Your task to perform on an android device: Toggle the flashlight Image 0: 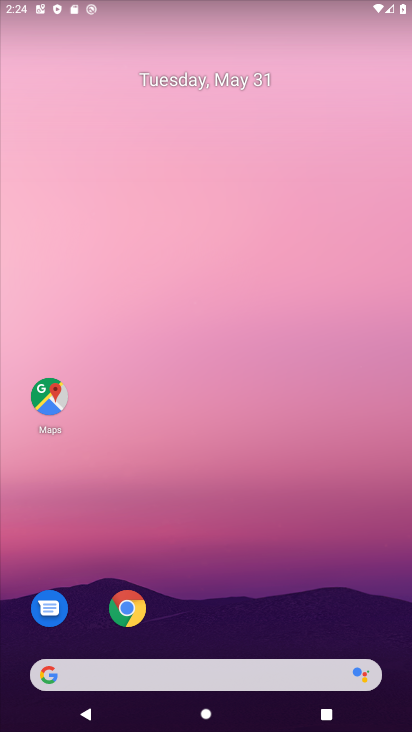
Step 0: drag from (178, 630) to (176, 10)
Your task to perform on an android device: Toggle the flashlight Image 1: 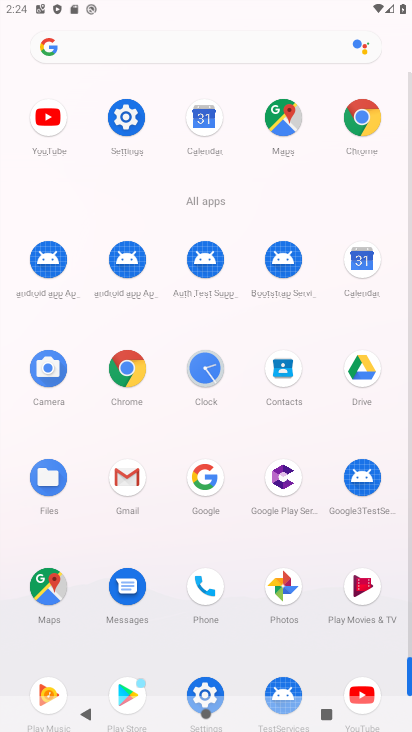
Step 1: click (130, 132)
Your task to perform on an android device: Toggle the flashlight Image 2: 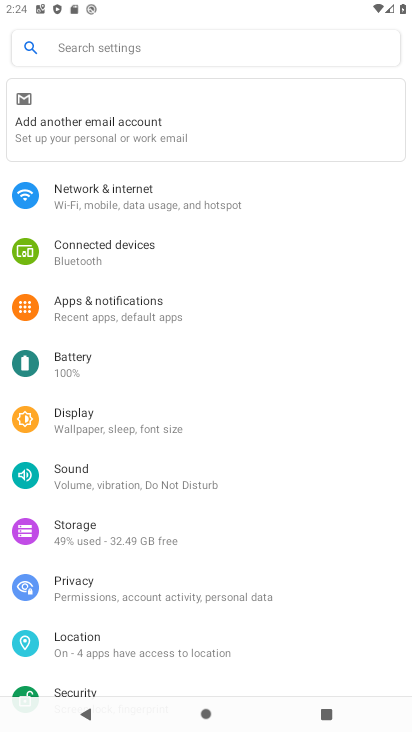
Step 2: click (192, 39)
Your task to perform on an android device: Toggle the flashlight Image 3: 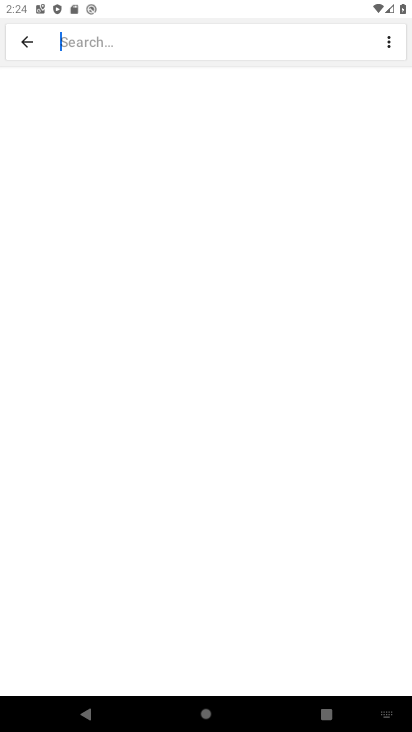
Step 3: type "flashlight"
Your task to perform on an android device: Toggle the flashlight Image 4: 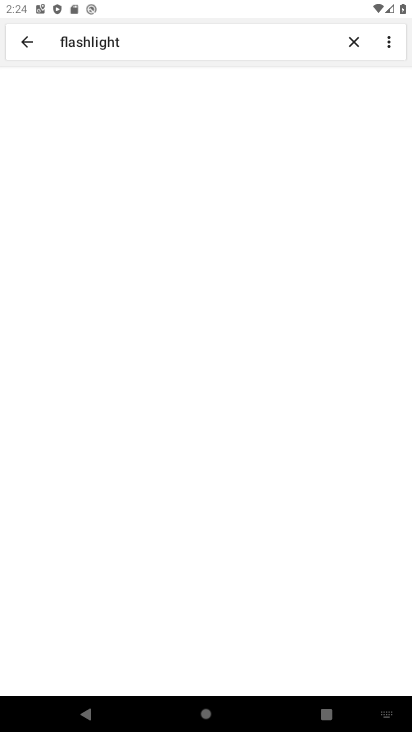
Step 4: click (102, 107)
Your task to perform on an android device: Toggle the flashlight Image 5: 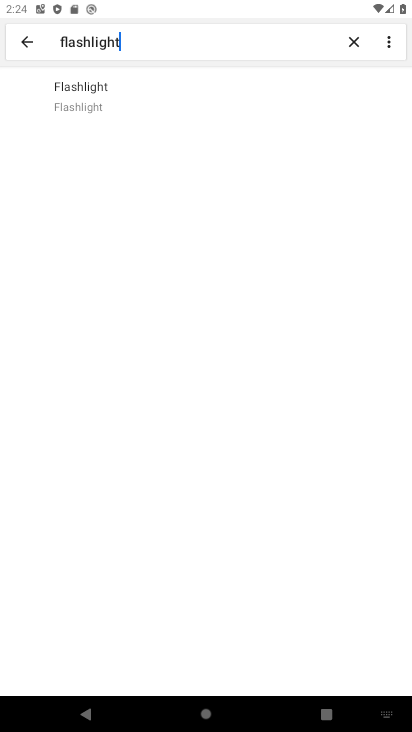
Step 5: click (102, 107)
Your task to perform on an android device: Toggle the flashlight Image 6: 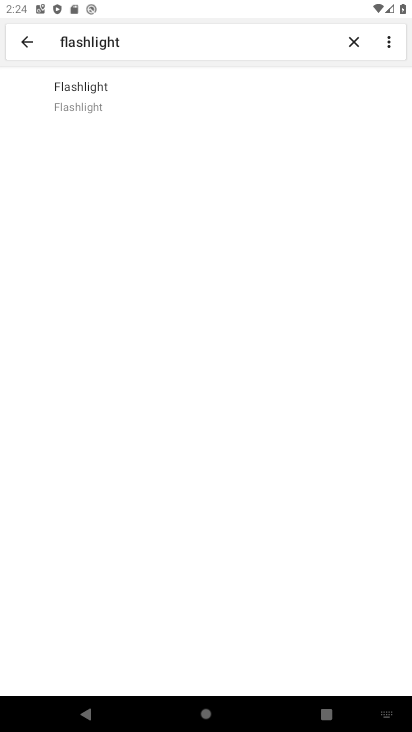
Step 6: click (102, 107)
Your task to perform on an android device: Toggle the flashlight Image 7: 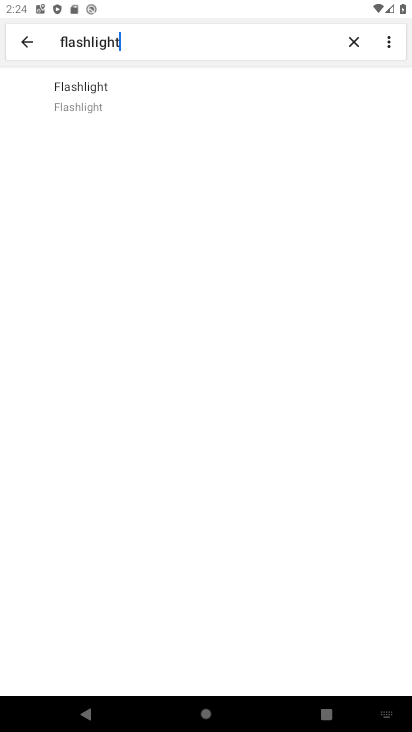
Step 7: click (102, 107)
Your task to perform on an android device: Toggle the flashlight Image 8: 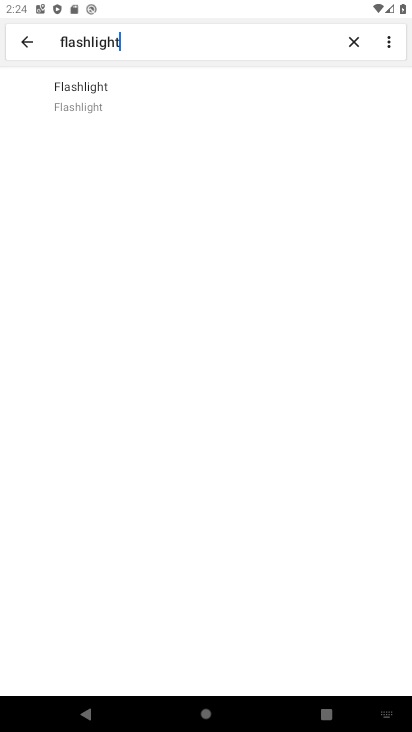
Step 8: task complete